Your task to perform on an android device: toggle sleep mode Image 0: 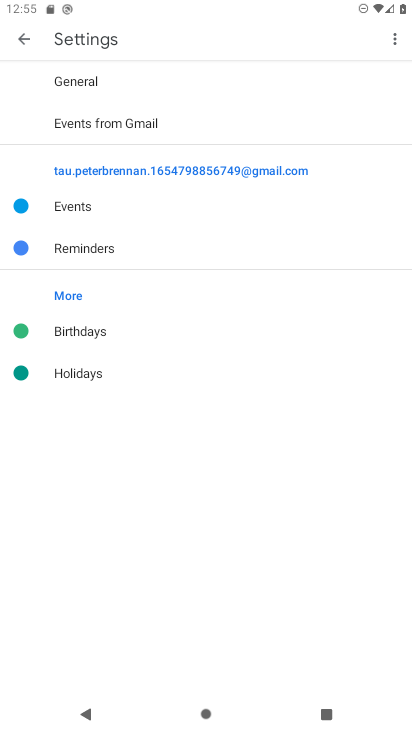
Step 0: press home button
Your task to perform on an android device: toggle sleep mode Image 1: 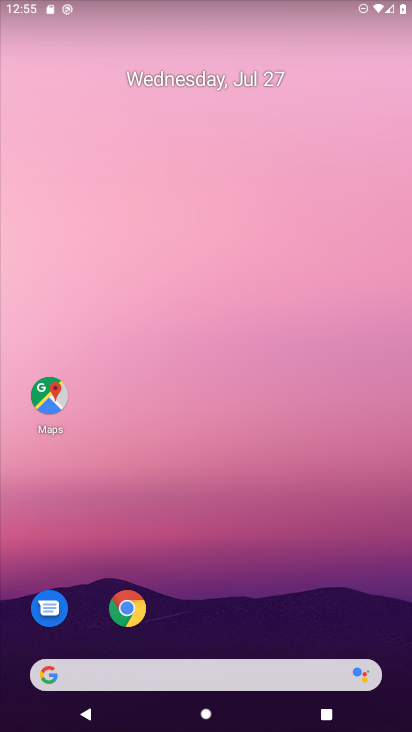
Step 1: drag from (200, 632) to (202, 2)
Your task to perform on an android device: toggle sleep mode Image 2: 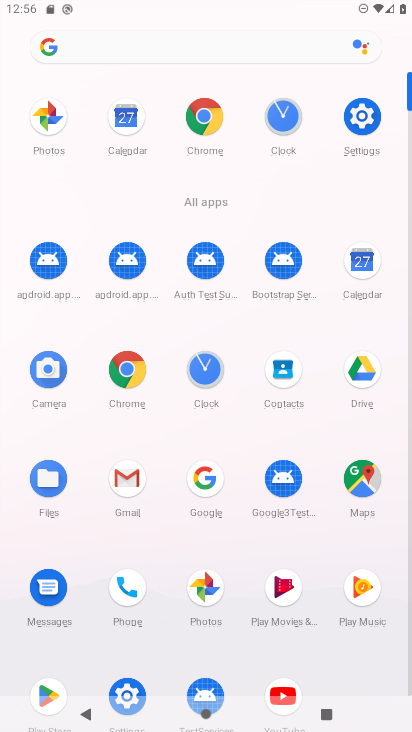
Step 2: click (123, 687)
Your task to perform on an android device: toggle sleep mode Image 3: 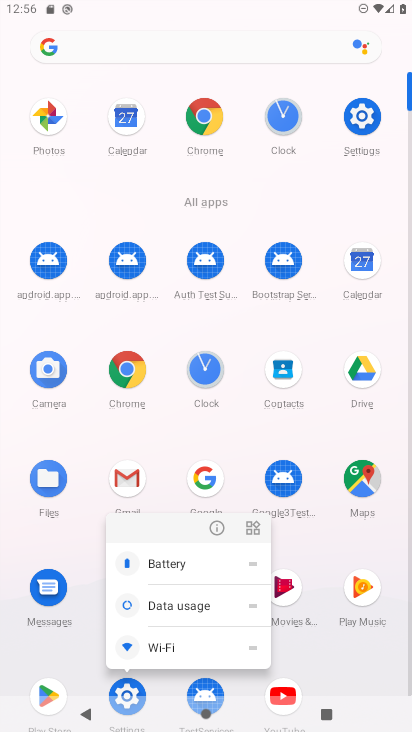
Step 3: click (124, 685)
Your task to perform on an android device: toggle sleep mode Image 4: 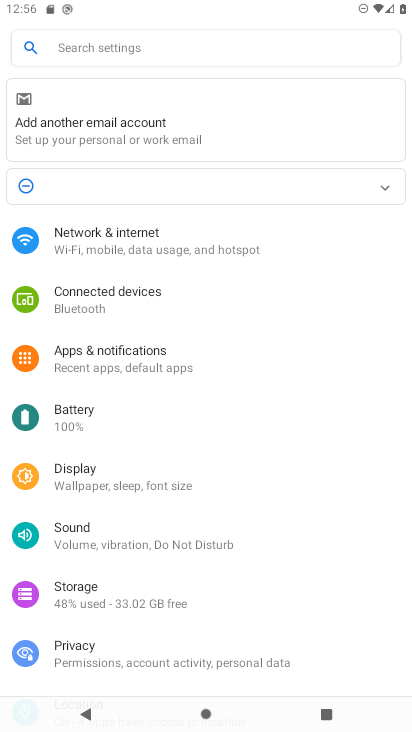
Step 4: click (177, 48)
Your task to perform on an android device: toggle sleep mode Image 5: 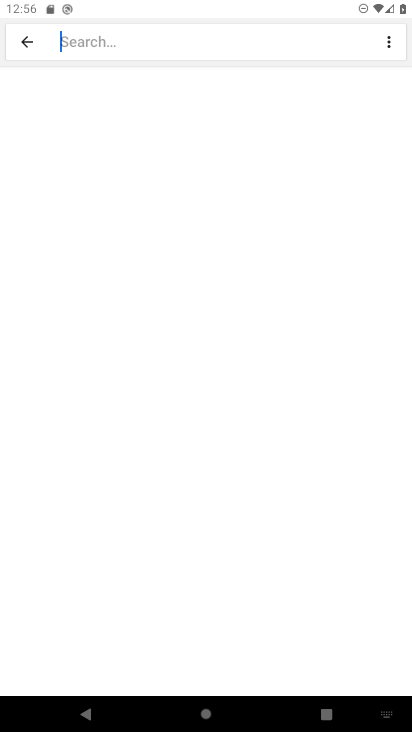
Step 5: type "sleep mode"
Your task to perform on an android device: toggle sleep mode Image 6: 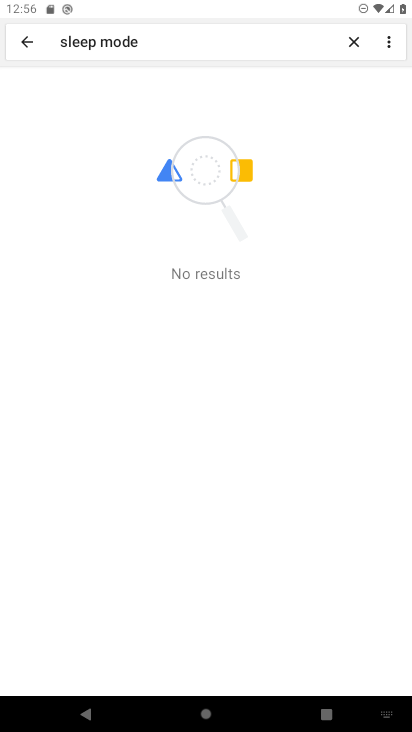
Step 6: task complete